Your task to perform on an android device: turn off location history Image 0: 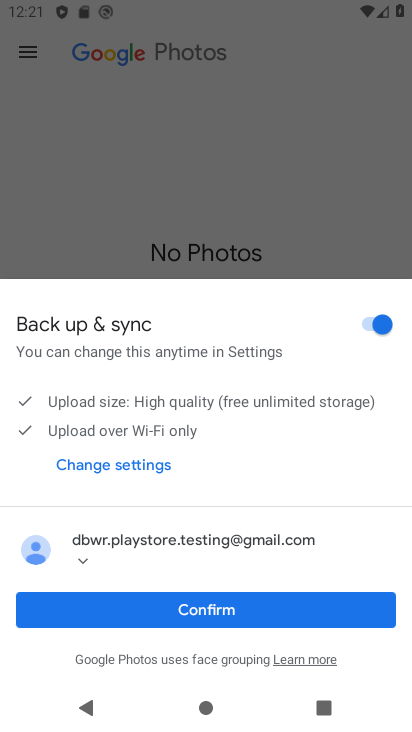
Step 0: press home button
Your task to perform on an android device: turn off location history Image 1: 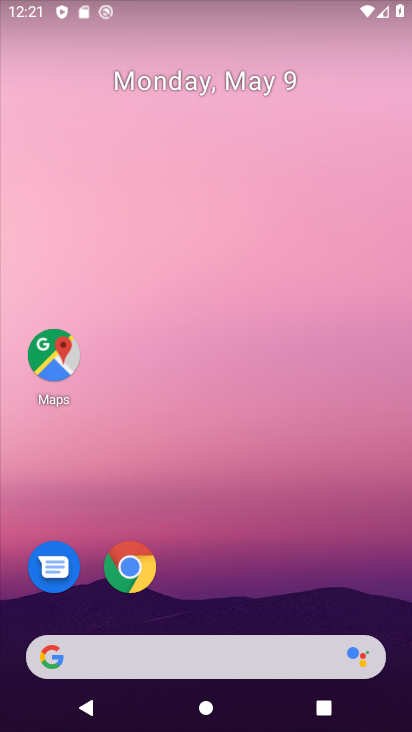
Step 1: drag from (237, 630) to (297, 46)
Your task to perform on an android device: turn off location history Image 2: 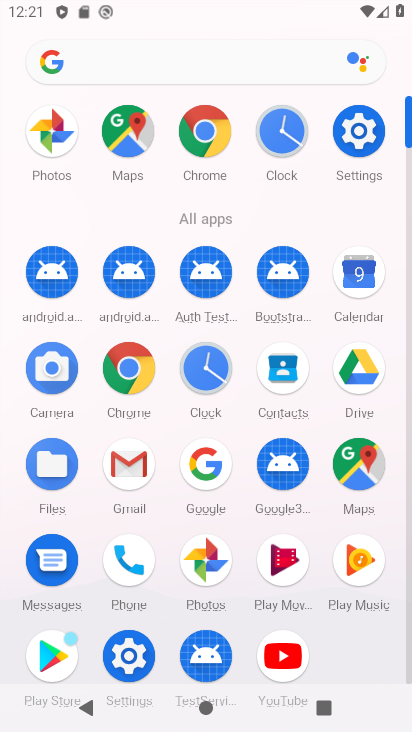
Step 2: click (362, 134)
Your task to perform on an android device: turn off location history Image 3: 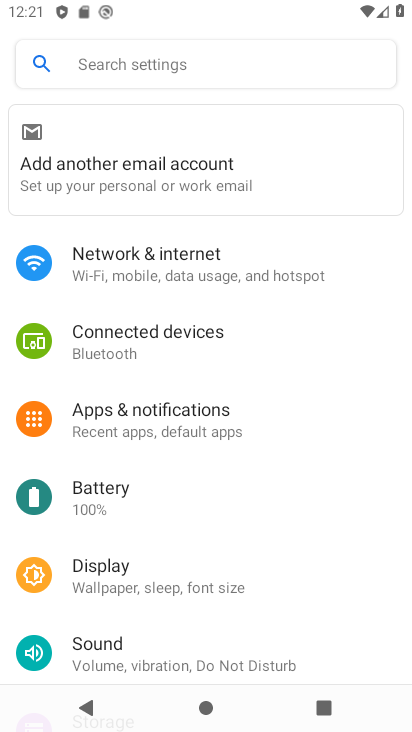
Step 3: drag from (164, 594) to (224, 97)
Your task to perform on an android device: turn off location history Image 4: 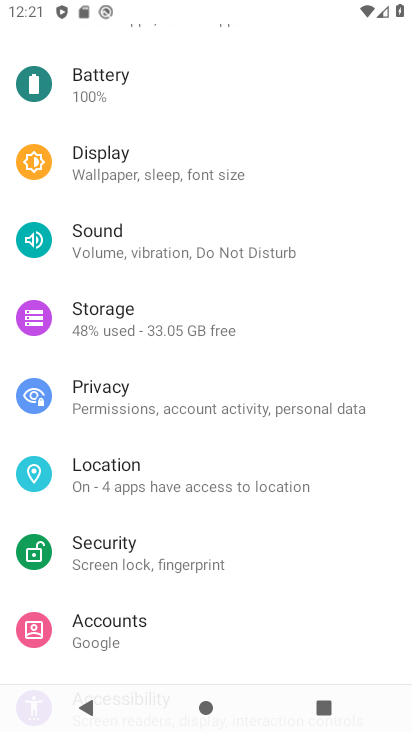
Step 4: click (180, 480)
Your task to perform on an android device: turn off location history Image 5: 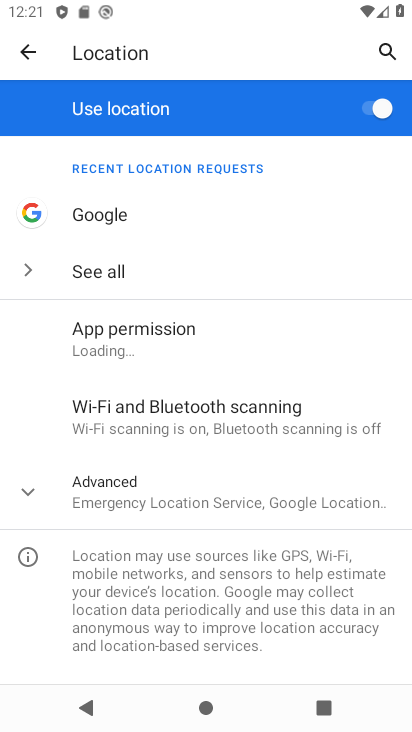
Step 5: click (177, 510)
Your task to perform on an android device: turn off location history Image 6: 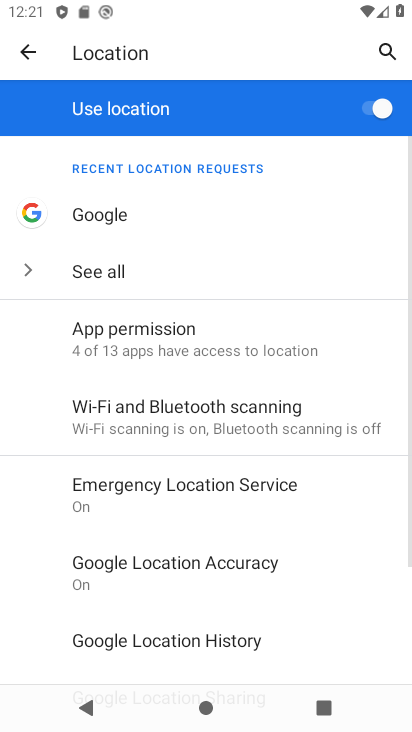
Step 6: drag from (187, 531) to (228, 256)
Your task to perform on an android device: turn off location history Image 7: 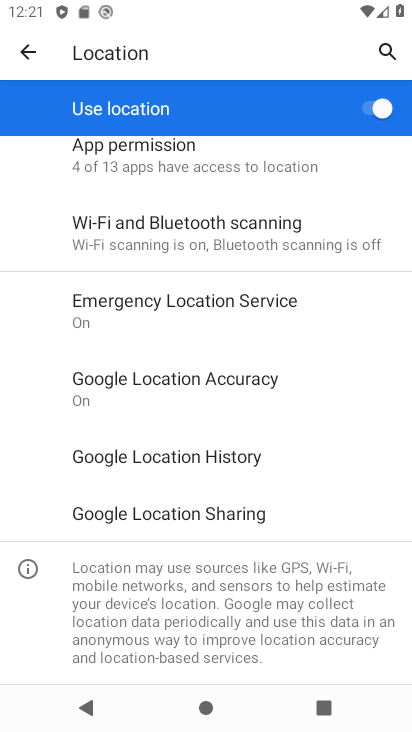
Step 7: click (172, 458)
Your task to perform on an android device: turn off location history Image 8: 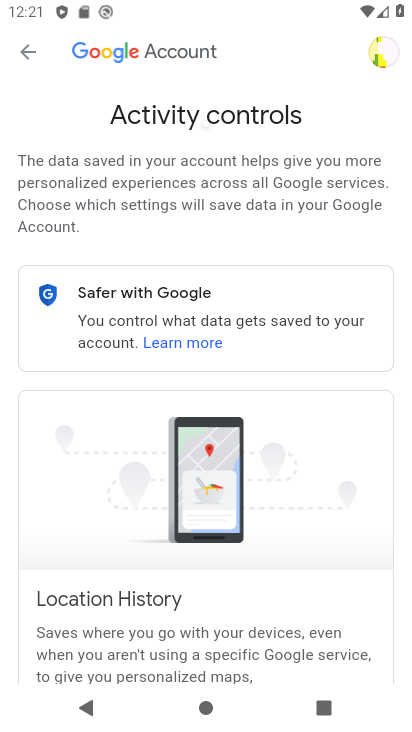
Step 8: drag from (177, 523) to (255, 158)
Your task to perform on an android device: turn off location history Image 9: 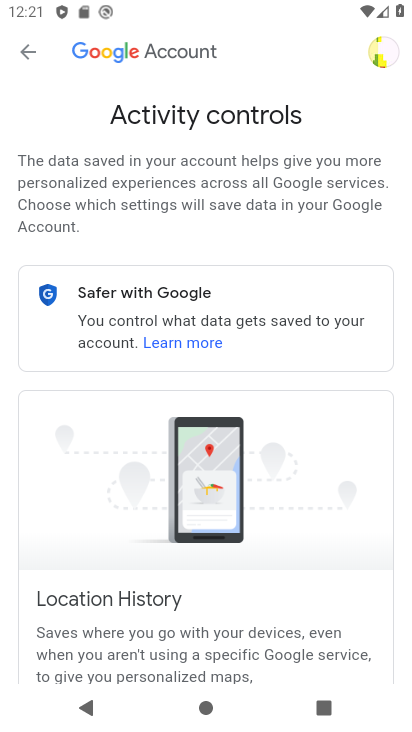
Step 9: drag from (221, 523) to (251, 112)
Your task to perform on an android device: turn off location history Image 10: 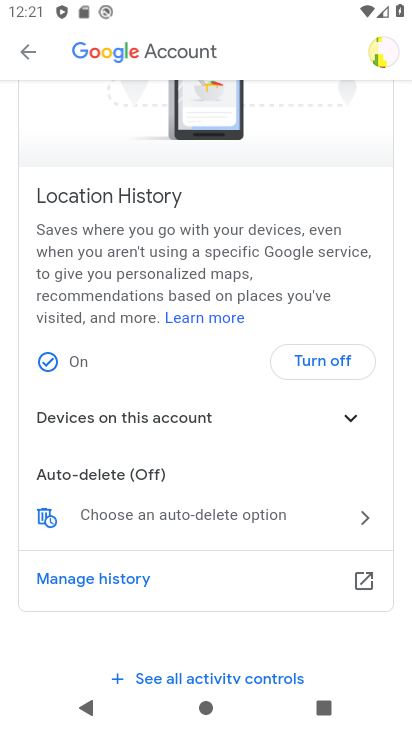
Step 10: click (322, 352)
Your task to perform on an android device: turn off location history Image 11: 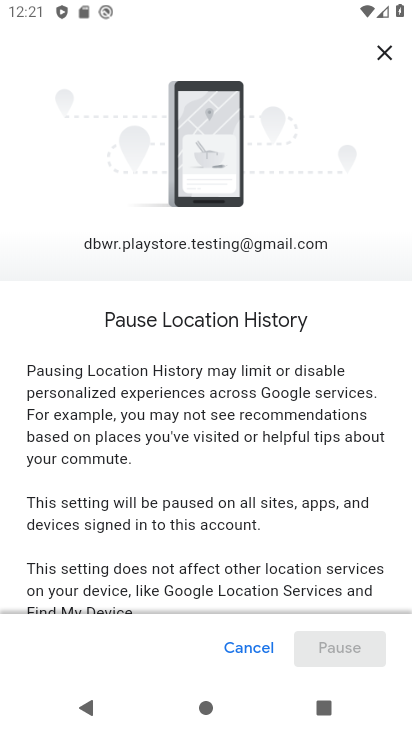
Step 11: drag from (265, 561) to (288, 171)
Your task to perform on an android device: turn off location history Image 12: 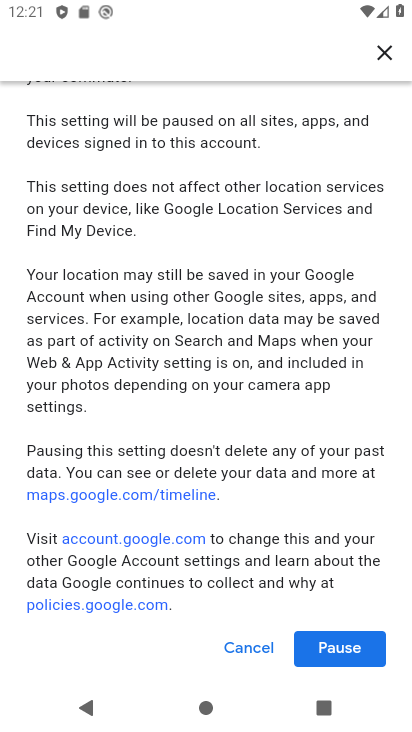
Step 12: drag from (283, 533) to (298, 275)
Your task to perform on an android device: turn off location history Image 13: 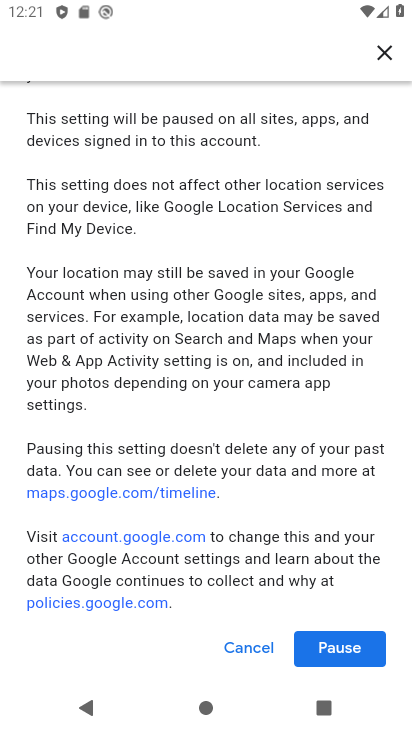
Step 13: click (319, 653)
Your task to perform on an android device: turn off location history Image 14: 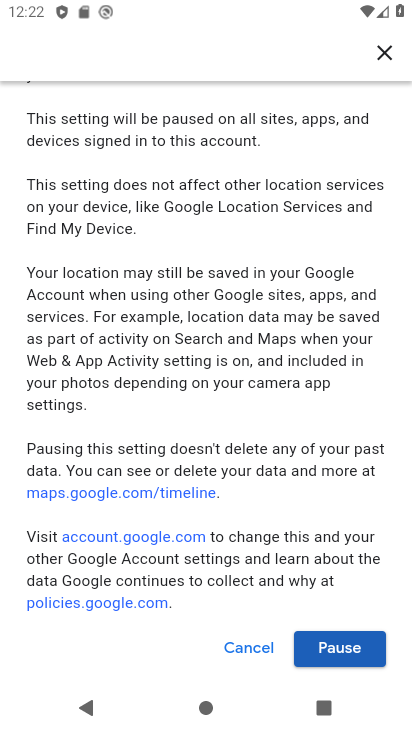
Step 14: click (346, 651)
Your task to perform on an android device: turn off location history Image 15: 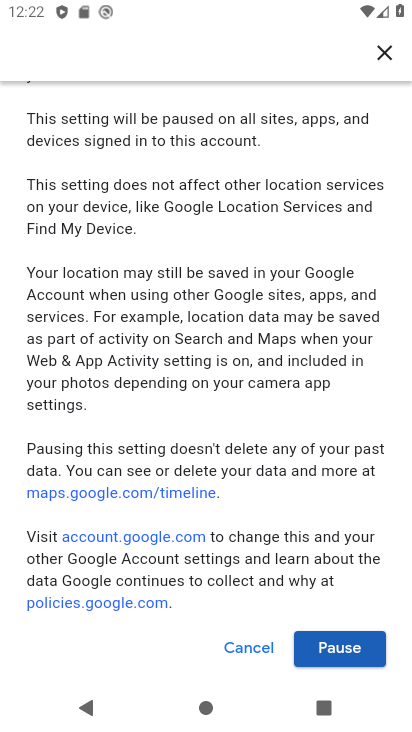
Step 15: click (340, 651)
Your task to perform on an android device: turn off location history Image 16: 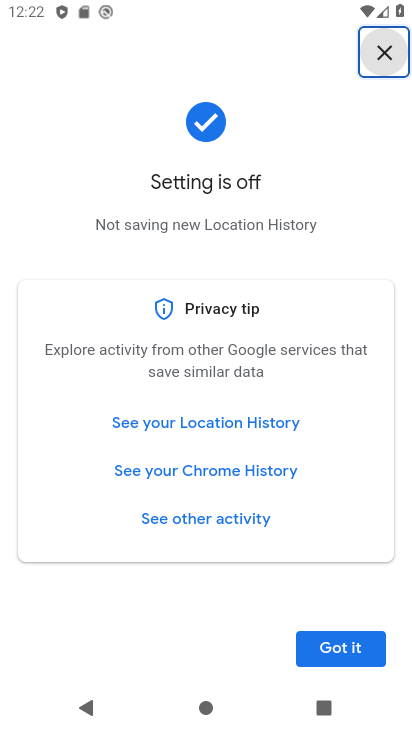
Step 16: click (367, 646)
Your task to perform on an android device: turn off location history Image 17: 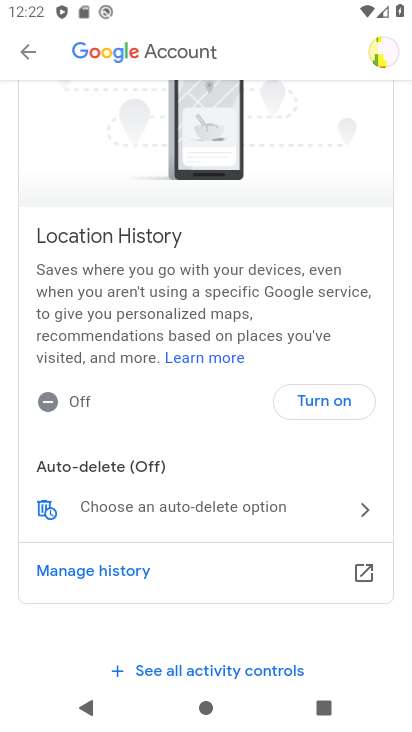
Step 17: task complete